Your task to perform on an android device: check out phone information Image 0: 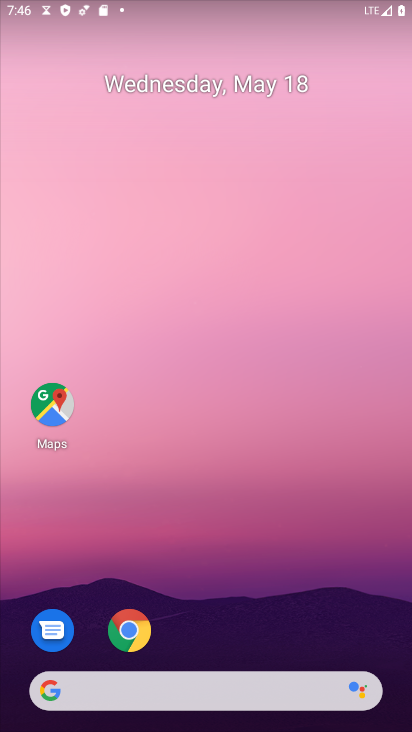
Step 0: drag from (363, 404) to (374, 86)
Your task to perform on an android device: check out phone information Image 1: 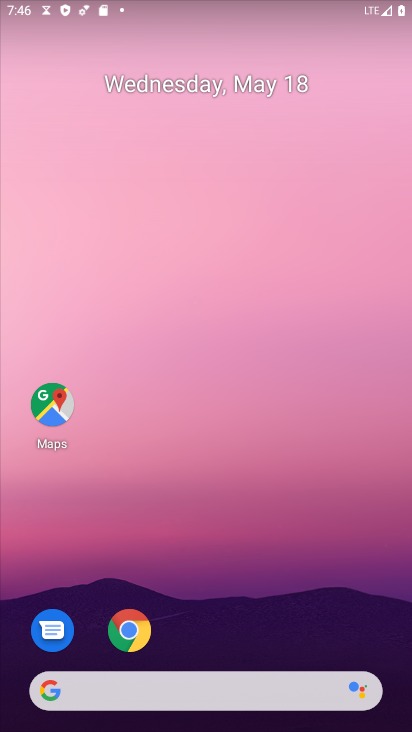
Step 1: drag from (316, 577) to (326, 127)
Your task to perform on an android device: check out phone information Image 2: 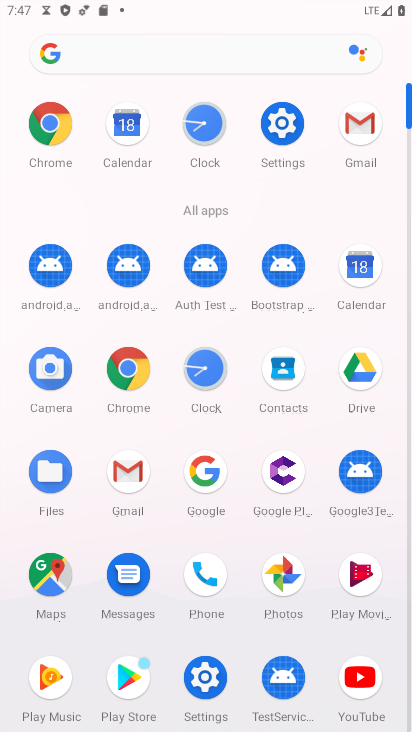
Step 2: click (287, 126)
Your task to perform on an android device: check out phone information Image 3: 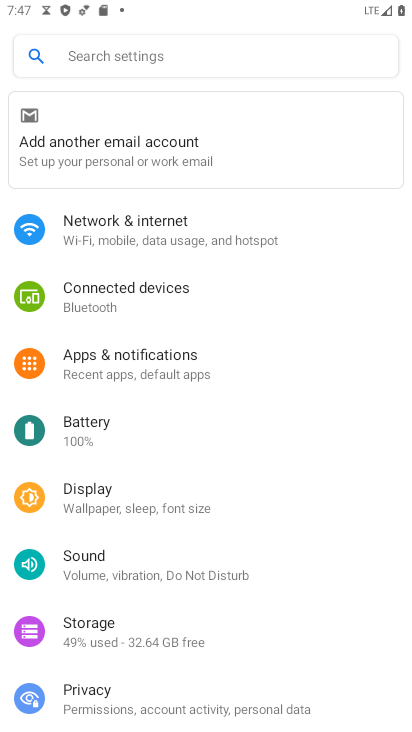
Step 3: drag from (120, 529) to (141, 153)
Your task to perform on an android device: check out phone information Image 4: 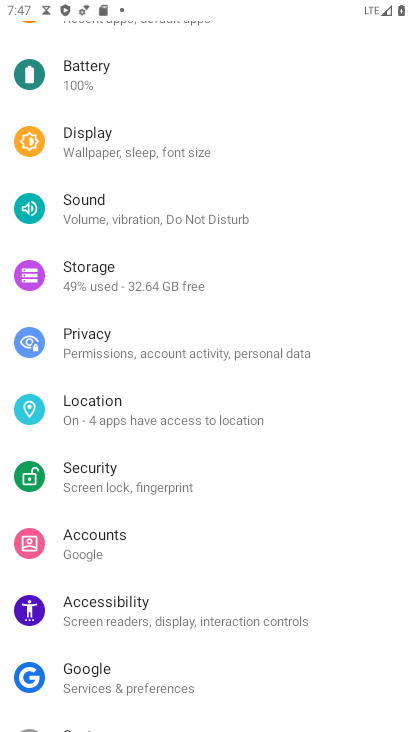
Step 4: drag from (249, 588) to (280, 258)
Your task to perform on an android device: check out phone information Image 5: 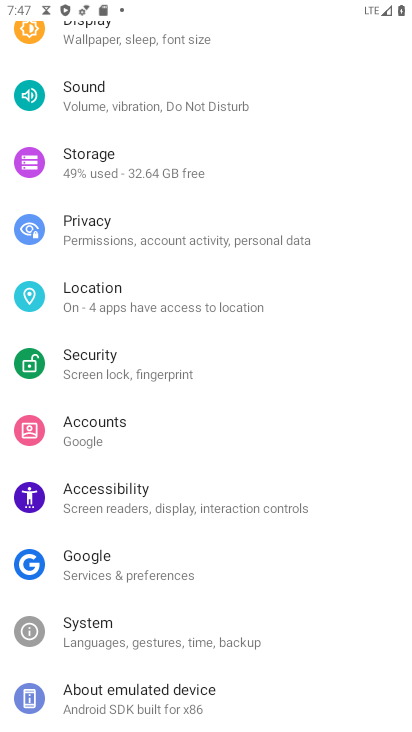
Step 5: click (173, 691)
Your task to perform on an android device: check out phone information Image 6: 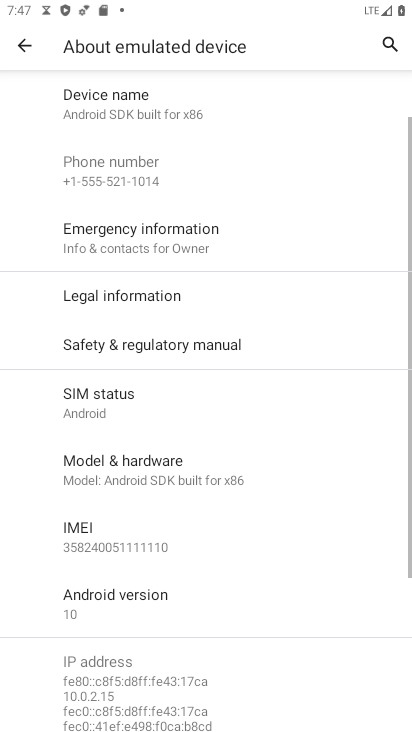
Step 6: task complete